Your task to perform on an android device: Do I have any events this weekend? Image 0: 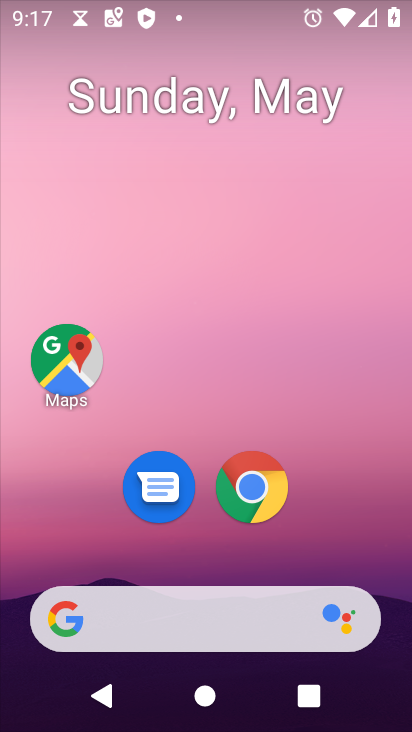
Step 0: drag from (331, 532) to (243, 106)
Your task to perform on an android device: Do I have any events this weekend? Image 1: 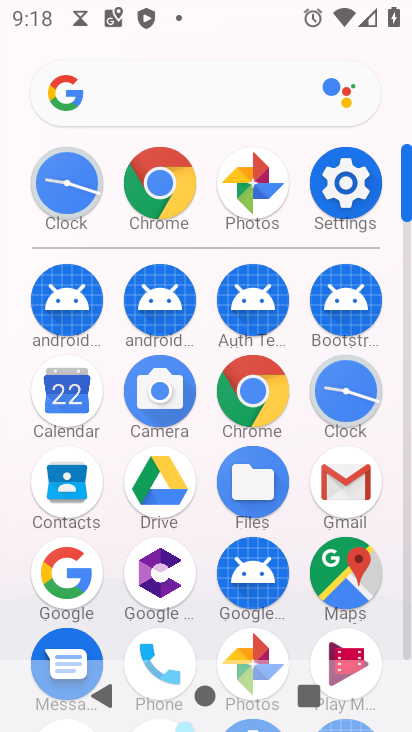
Step 1: click (70, 96)
Your task to perform on an android device: Do I have any events this weekend? Image 2: 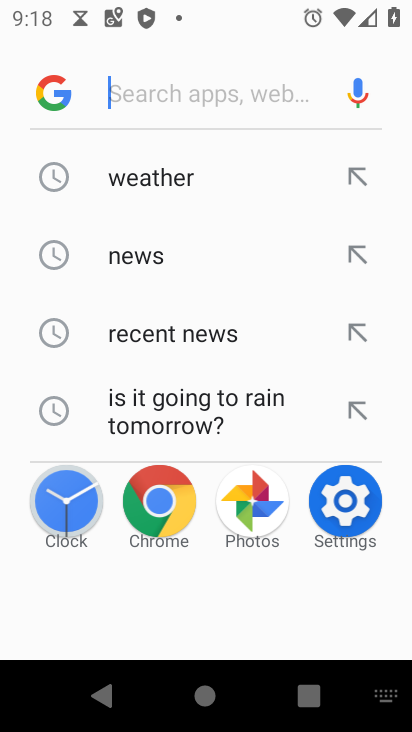
Step 2: click (71, 90)
Your task to perform on an android device: Do I have any events this weekend? Image 3: 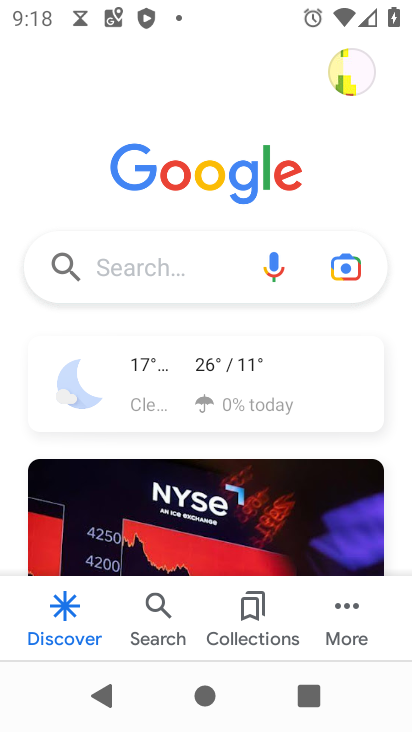
Step 3: click (181, 408)
Your task to perform on an android device: Do I have any events this weekend? Image 4: 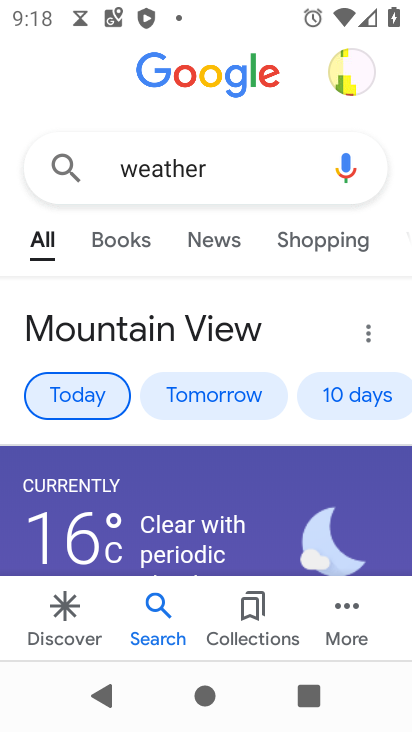
Step 4: task complete